Your task to perform on an android device: Show me the alarms in the clock app Image 0: 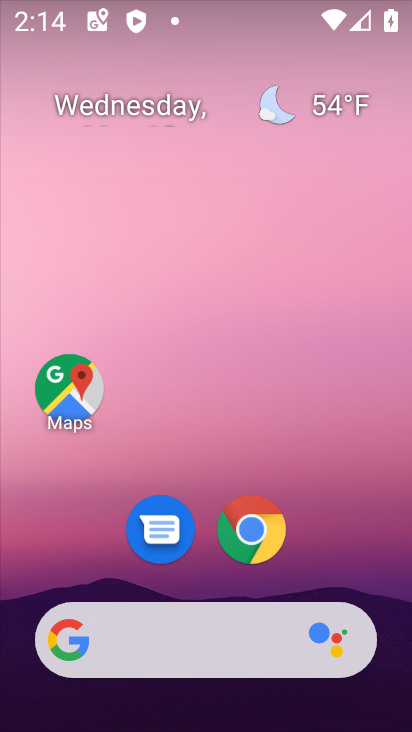
Step 0: drag from (189, 582) to (256, 9)
Your task to perform on an android device: Show me the alarms in the clock app Image 1: 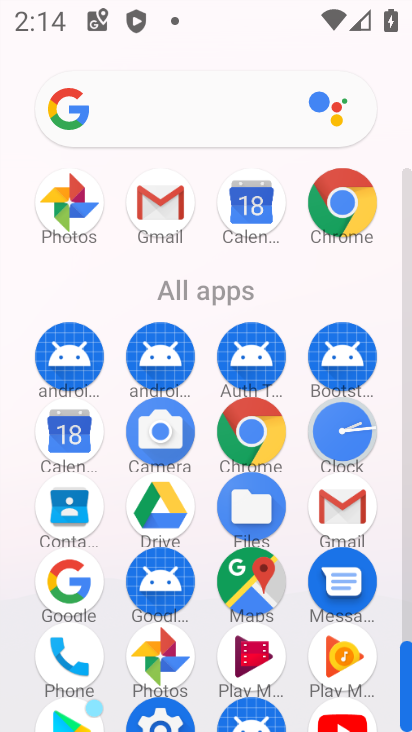
Step 1: click (349, 432)
Your task to perform on an android device: Show me the alarms in the clock app Image 2: 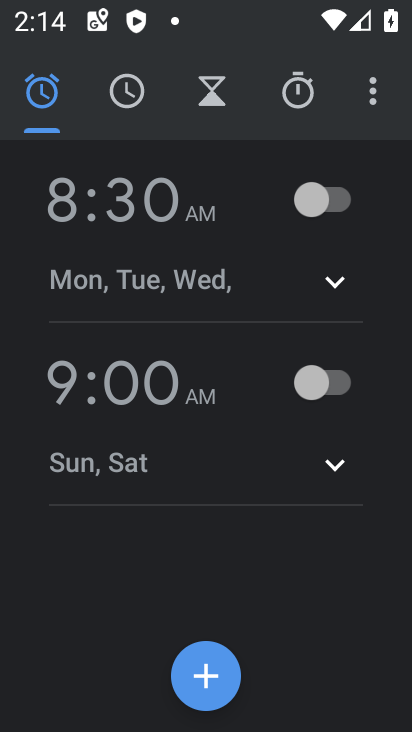
Step 2: task complete